Your task to perform on an android device: Open the calendar app, open the side menu, and click the "Day" option Image 0: 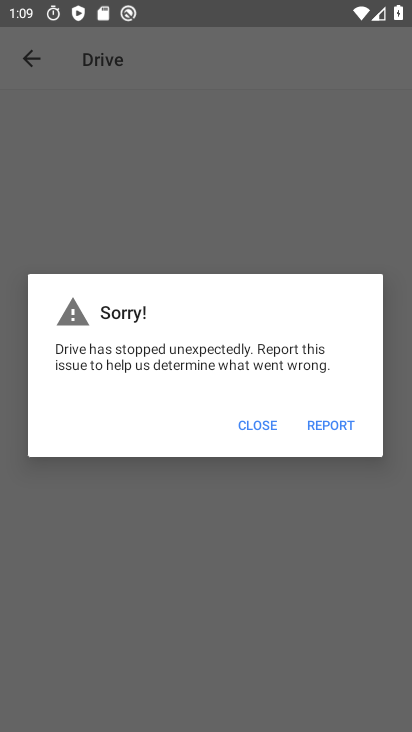
Step 0: press home button
Your task to perform on an android device: Open the calendar app, open the side menu, and click the "Day" option Image 1: 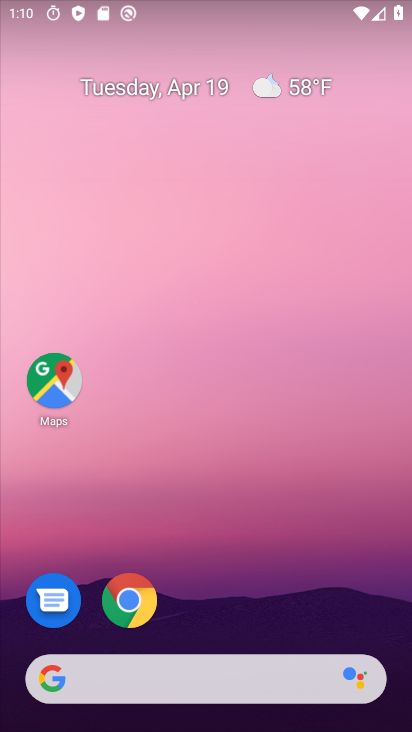
Step 1: drag from (248, 708) to (343, 316)
Your task to perform on an android device: Open the calendar app, open the side menu, and click the "Day" option Image 2: 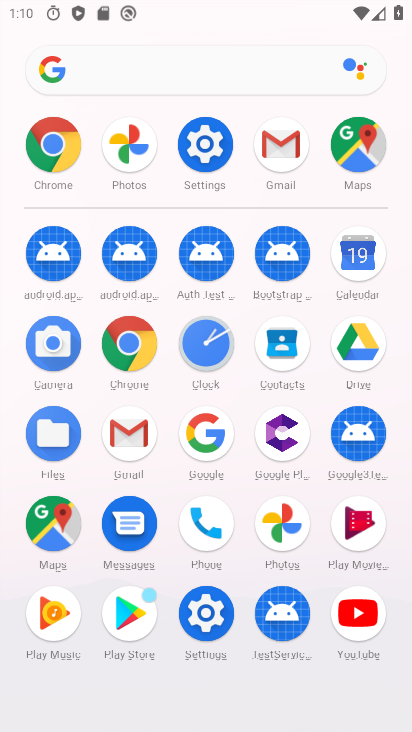
Step 2: click (354, 241)
Your task to perform on an android device: Open the calendar app, open the side menu, and click the "Day" option Image 3: 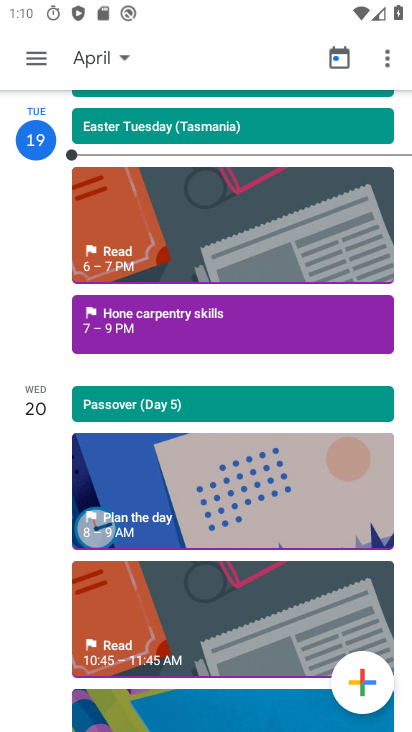
Step 3: click (42, 56)
Your task to perform on an android device: Open the calendar app, open the side menu, and click the "Day" option Image 4: 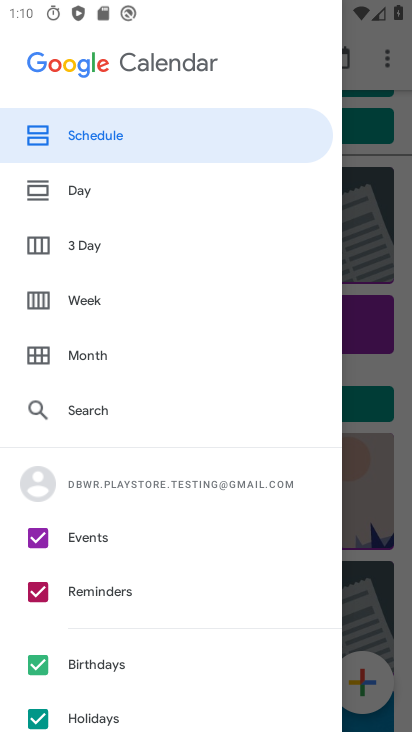
Step 4: click (99, 197)
Your task to perform on an android device: Open the calendar app, open the side menu, and click the "Day" option Image 5: 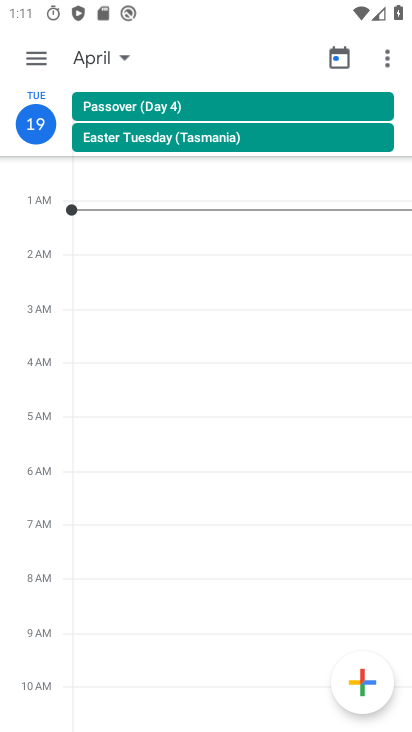
Step 5: task complete